Your task to perform on an android device: Open Chrome and go to settings Image 0: 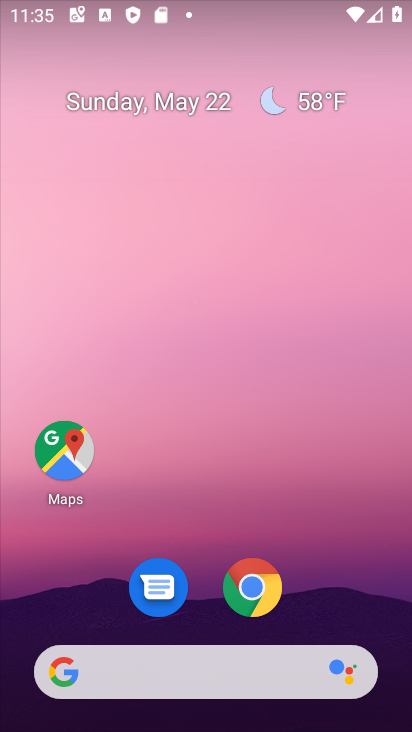
Step 0: click (260, 571)
Your task to perform on an android device: Open Chrome and go to settings Image 1: 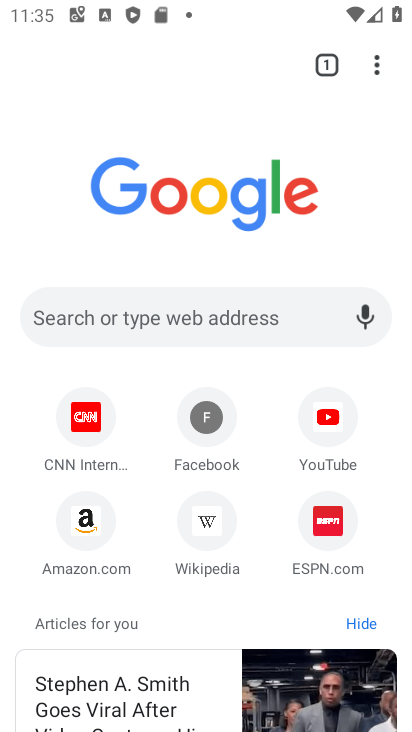
Step 1: click (372, 68)
Your task to perform on an android device: Open Chrome and go to settings Image 2: 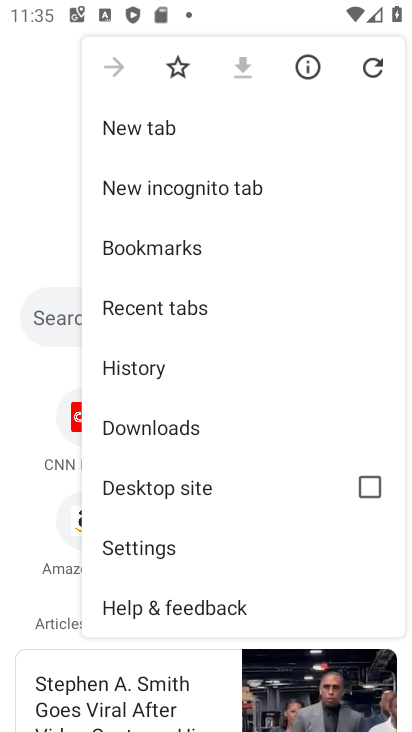
Step 2: click (186, 542)
Your task to perform on an android device: Open Chrome and go to settings Image 3: 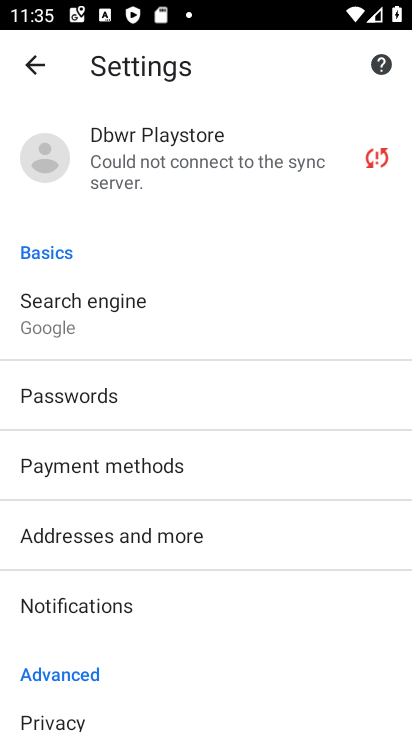
Step 3: task complete